Your task to perform on an android device: Open accessibility settings Image 0: 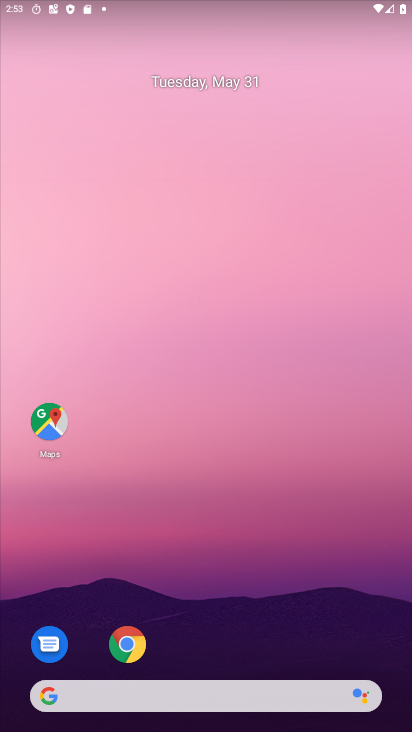
Step 0: drag from (392, 714) to (334, 87)
Your task to perform on an android device: Open accessibility settings Image 1: 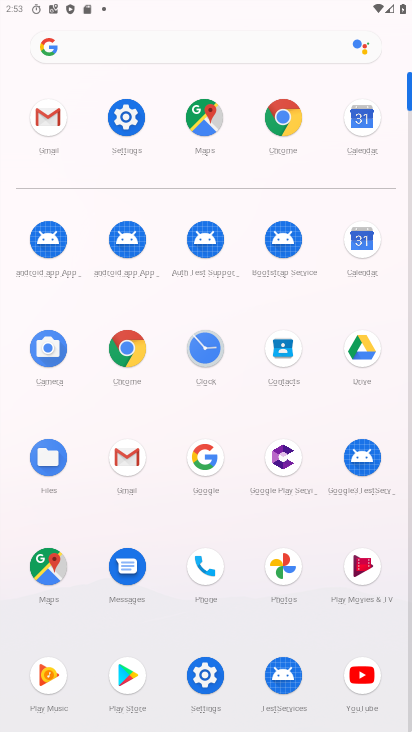
Step 1: click (204, 675)
Your task to perform on an android device: Open accessibility settings Image 2: 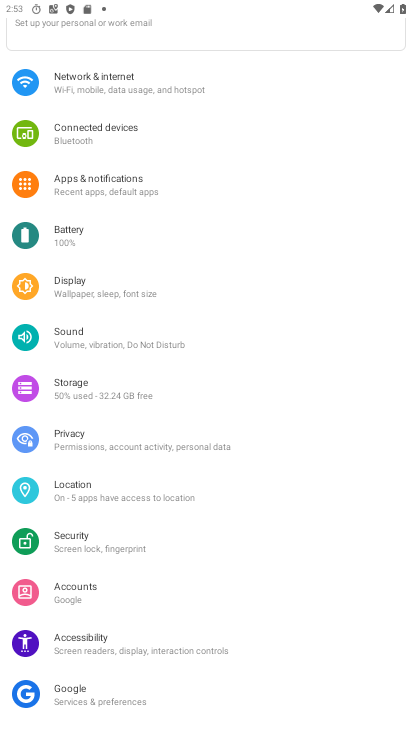
Step 2: click (67, 642)
Your task to perform on an android device: Open accessibility settings Image 3: 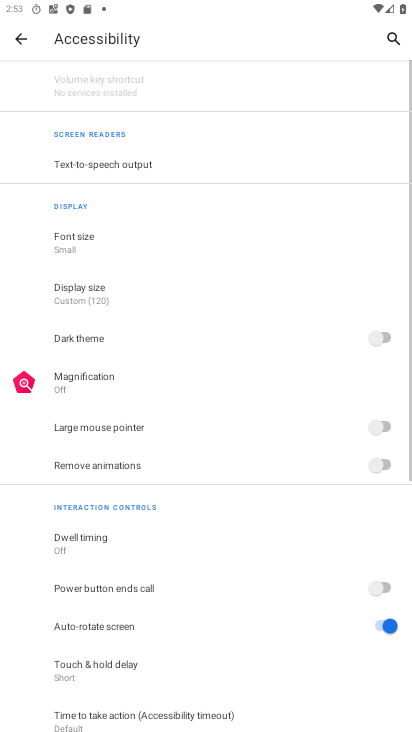
Step 3: task complete